Your task to perform on an android device: search for accent chairs on article.com Image 0: 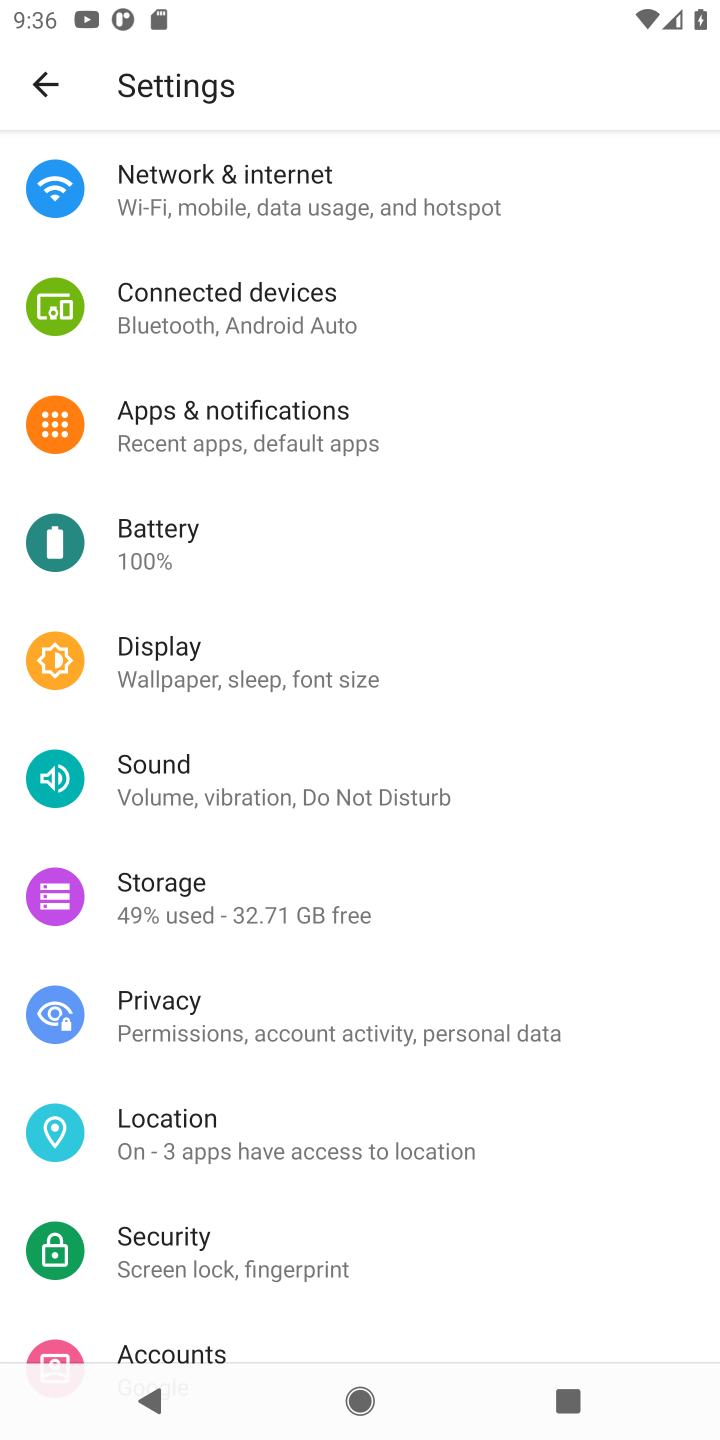
Step 0: press home button
Your task to perform on an android device: search for accent chairs on article.com Image 1: 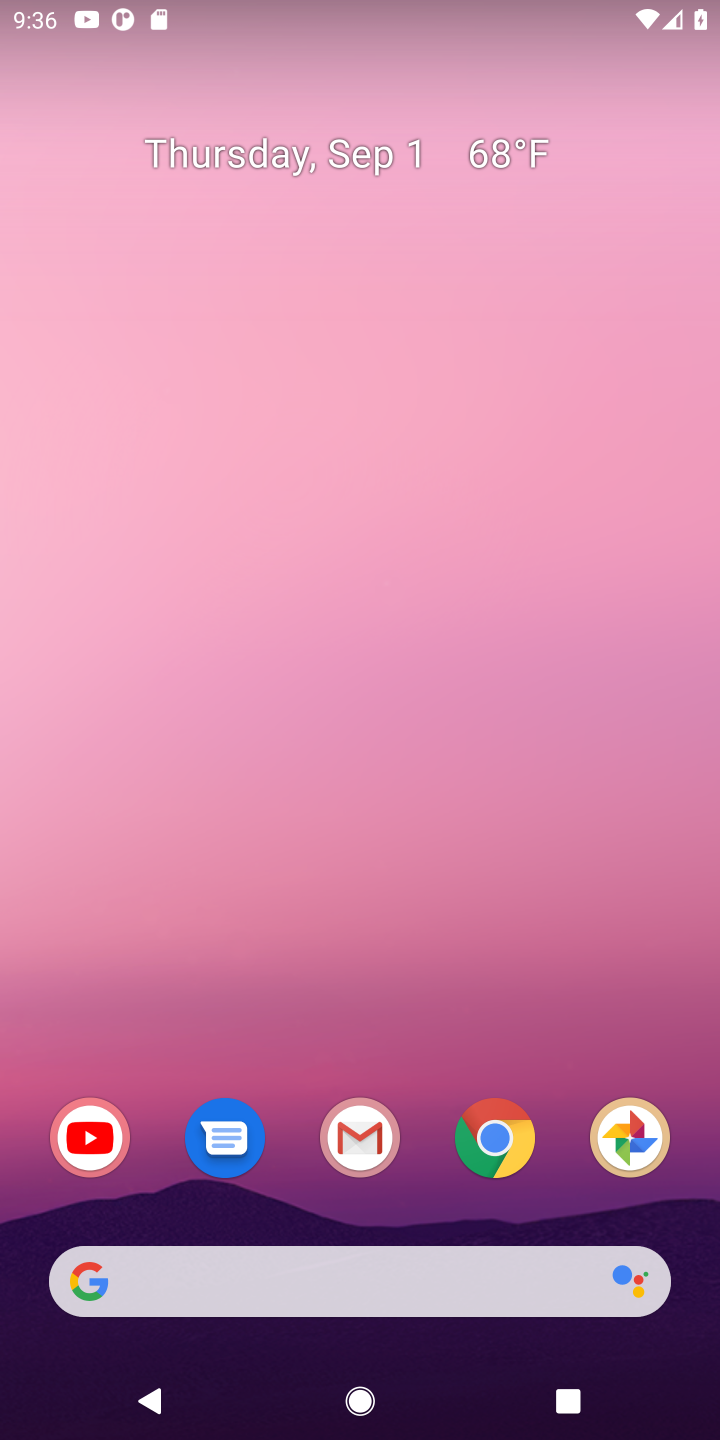
Step 1: click (335, 1280)
Your task to perform on an android device: search for accent chairs on article.com Image 2: 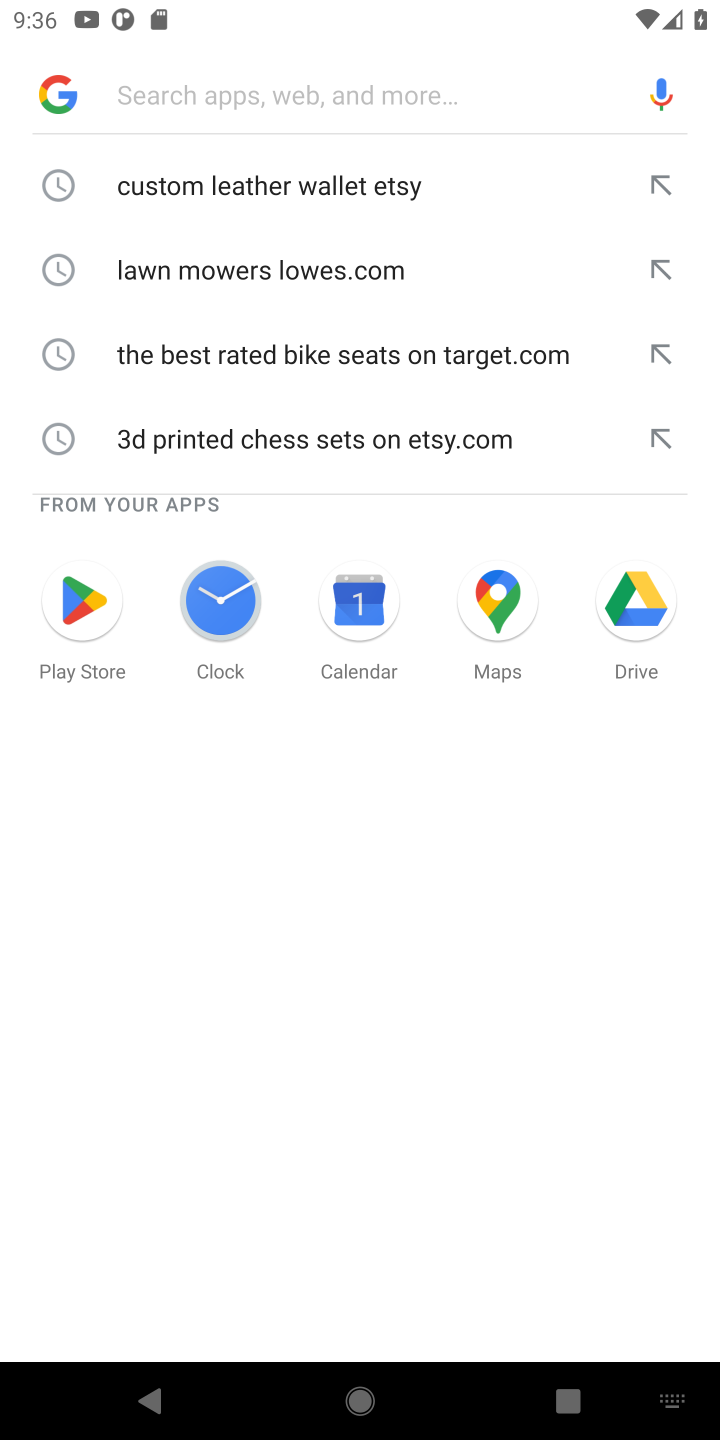
Step 2: type "accent chairs on article.com"
Your task to perform on an android device: search for accent chairs on article.com Image 3: 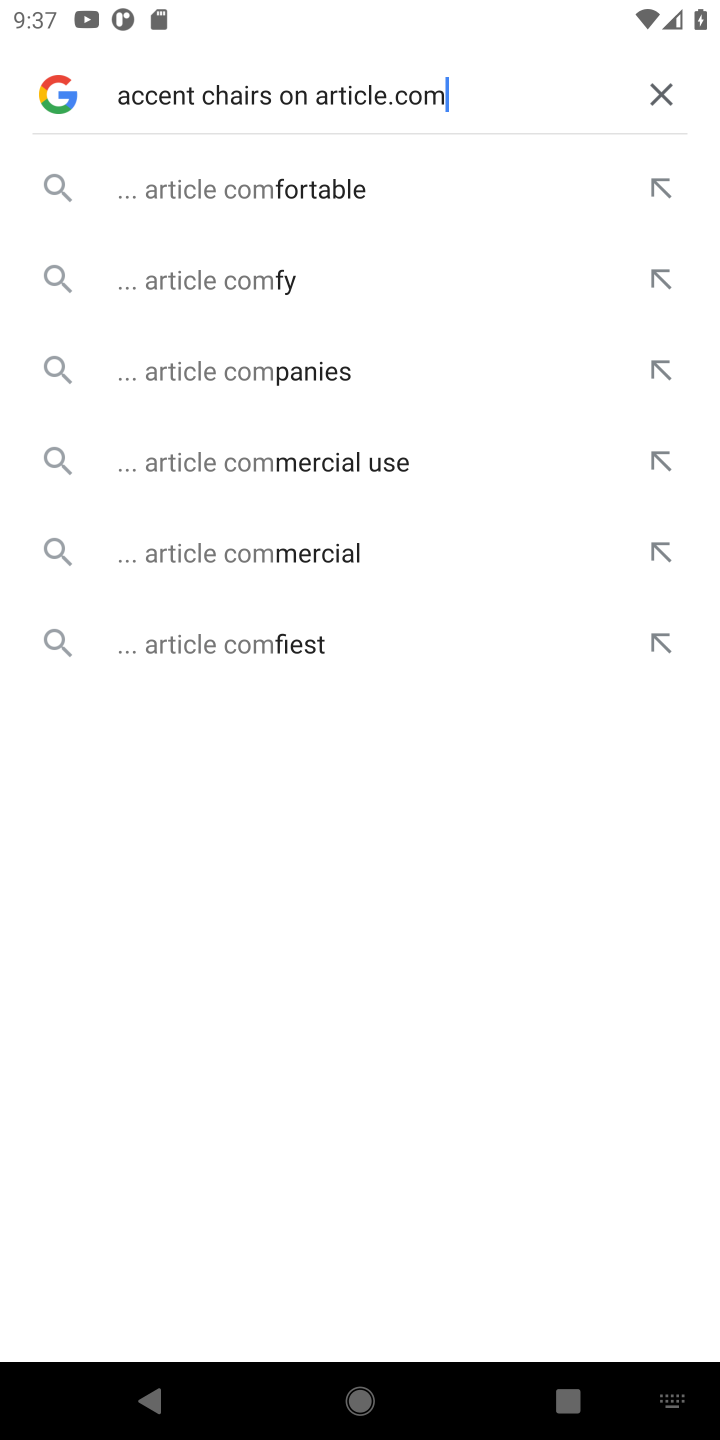
Step 3: click (171, 189)
Your task to perform on an android device: search for accent chairs on article.com Image 4: 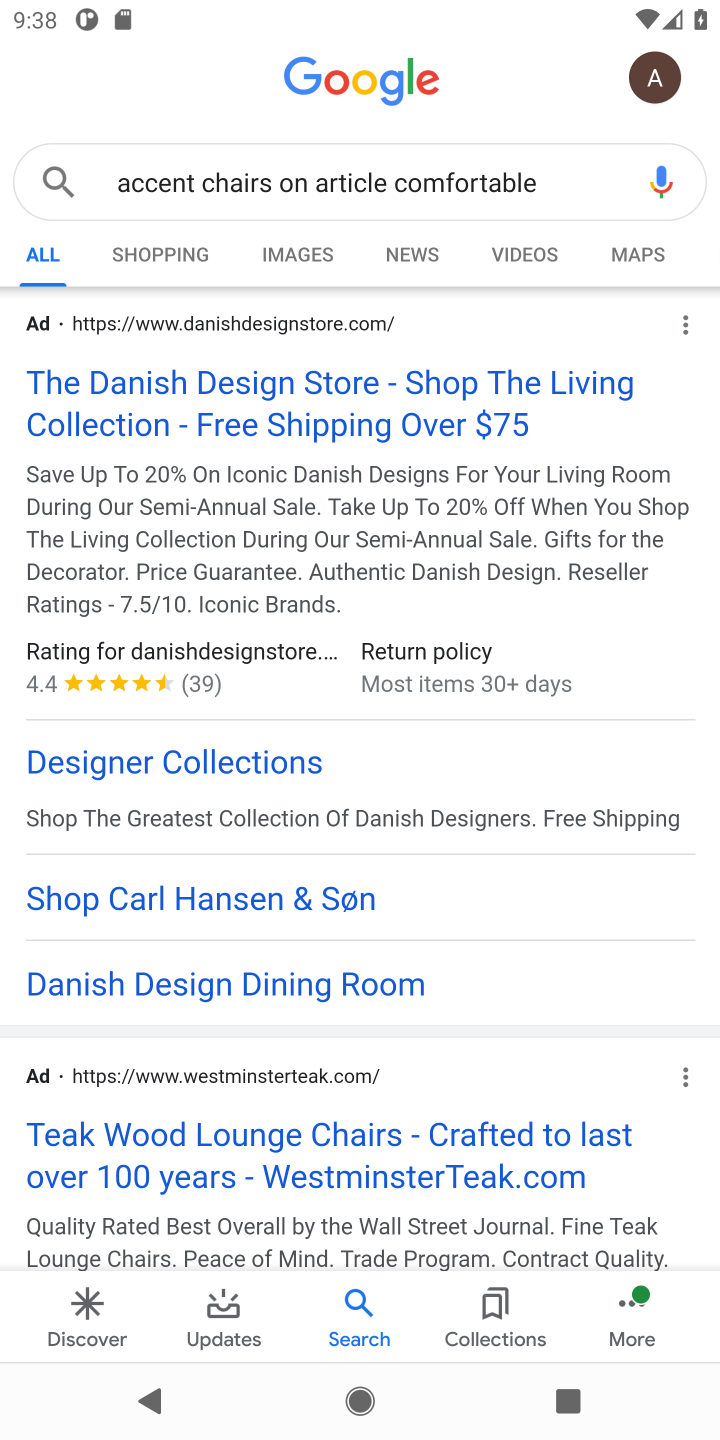
Step 4: task complete